Your task to perform on an android device: open a bookmark in the chrome app Image 0: 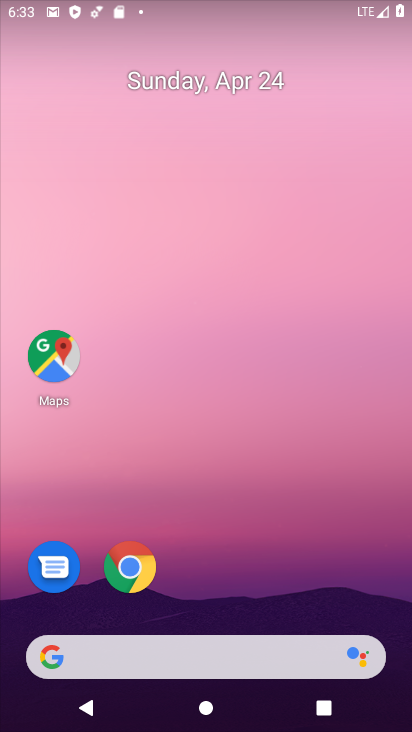
Step 0: drag from (345, 532) to (242, 20)
Your task to perform on an android device: open a bookmark in the chrome app Image 1: 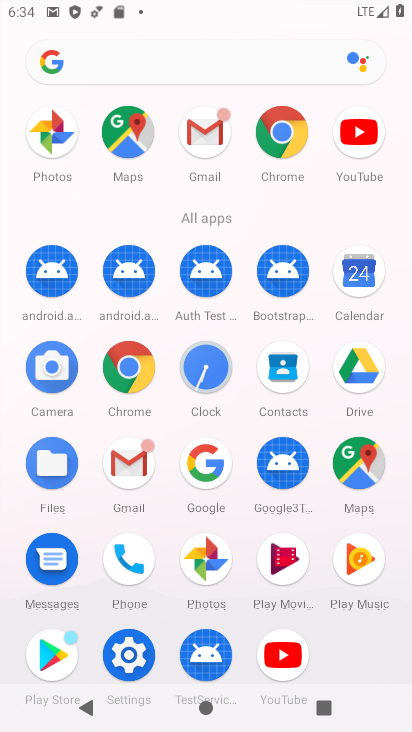
Step 1: click (285, 122)
Your task to perform on an android device: open a bookmark in the chrome app Image 2: 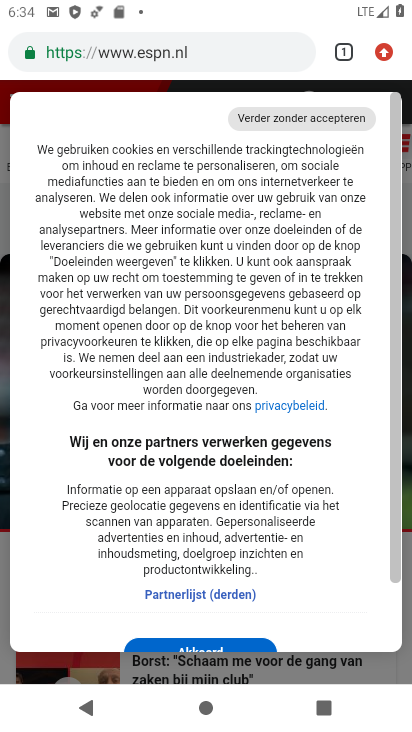
Step 2: press back button
Your task to perform on an android device: open a bookmark in the chrome app Image 3: 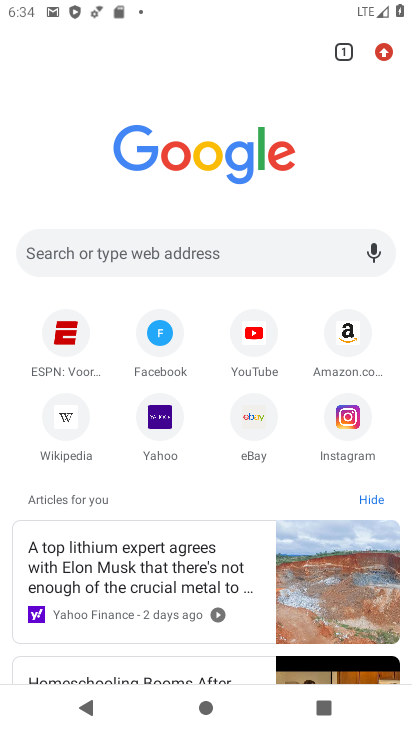
Step 3: click (385, 55)
Your task to perform on an android device: open a bookmark in the chrome app Image 4: 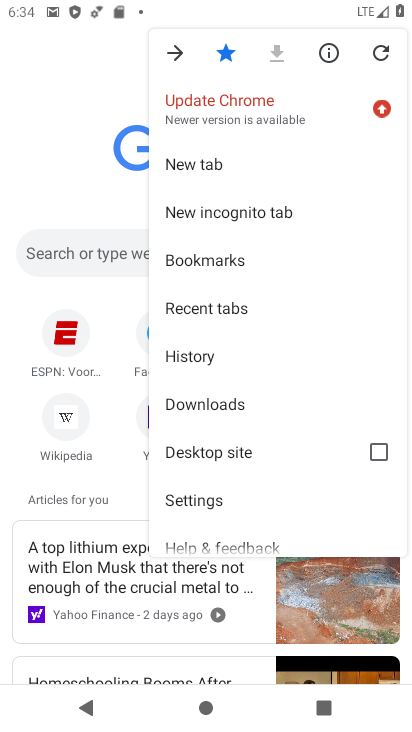
Step 4: click (230, 258)
Your task to perform on an android device: open a bookmark in the chrome app Image 5: 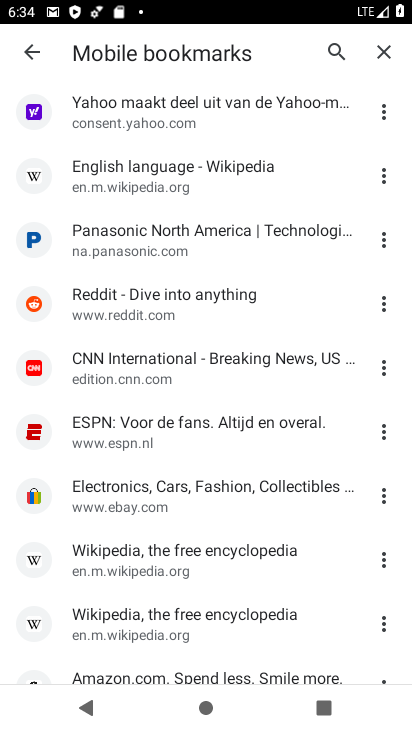
Step 5: task complete